Your task to perform on an android device: Search for Mexican restaurants on Maps Image 0: 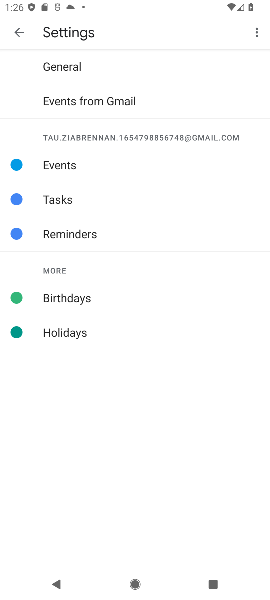
Step 0: press home button
Your task to perform on an android device: Search for Mexican restaurants on Maps Image 1: 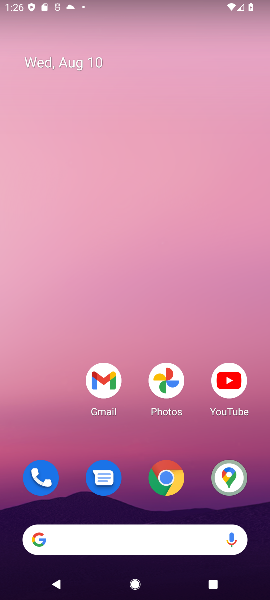
Step 1: click (173, 470)
Your task to perform on an android device: Search for Mexican restaurants on Maps Image 2: 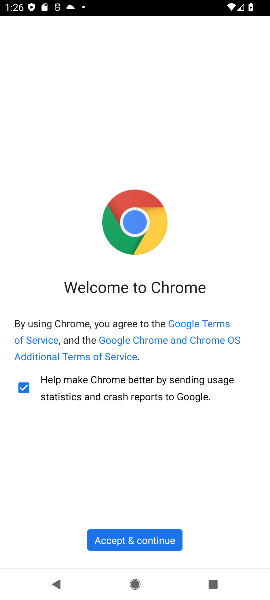
Step 2: press home button
Your task to perform on an android device: Search for Mexican restaurants on Maps Image 3: 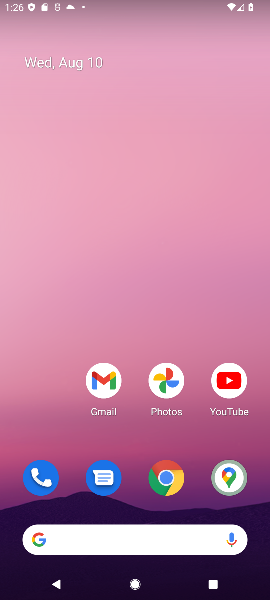
Step 3: drag from (175, 277) to (192, 43)
Your task to perform on an android device: Search for Mexican restaurants on Maps Image 4: 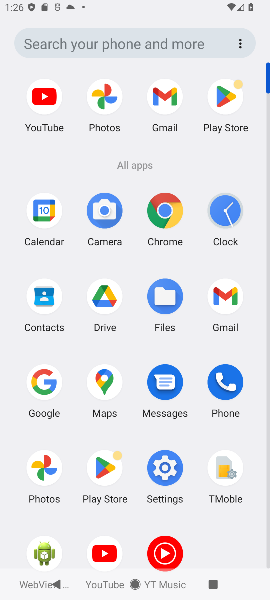
Step 4: click (108, 385)
Your task to perform on an android device: Search for Mexican restaurants on Maps Image 5: 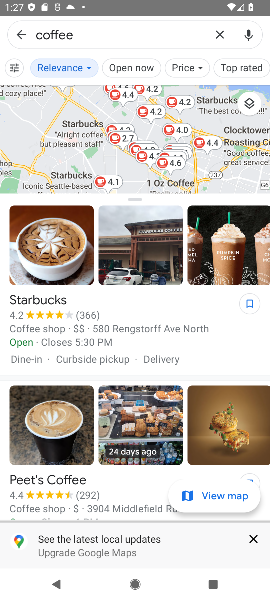
Step 5: click (221, 33)
Your task to perform on an android device: Search for Mexican restaurants on Maps Image 6: 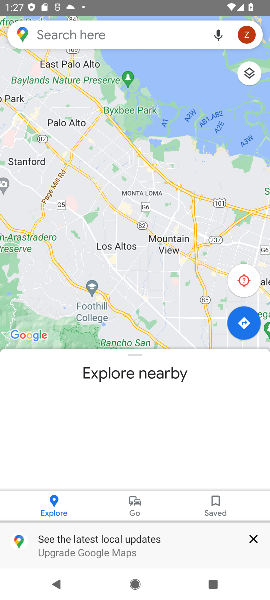
Step 6: click (173, 34)
Your task to perform on an android device: Search for Mexican restaurants on Maps Image 7: 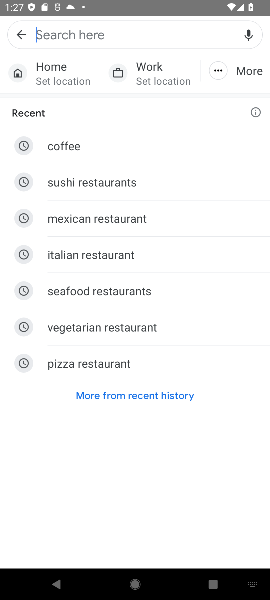
Step 7: type "Mexican restaurants"
Your task to perform on an android device: Search for Mexican restaurants on Maps Image 8: 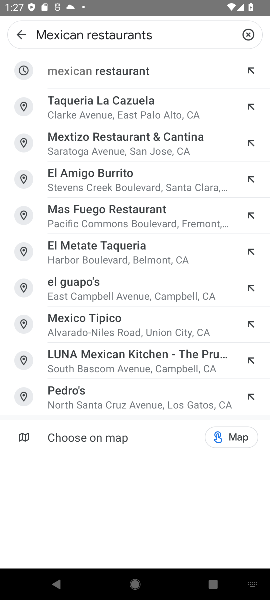
Step 8: press enter
Your task to perform on an android device: Search for Mexican restaurants on Maps Image 9: 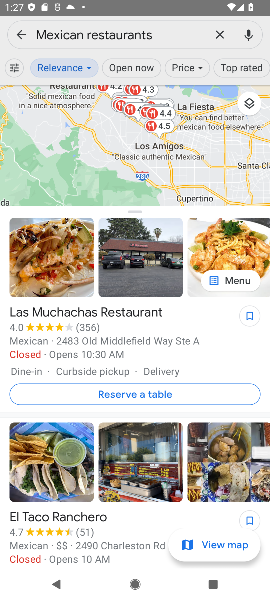
Step 9: task complete